Your task to perform on an android device: move a message to another label in the gmail app Image 0: 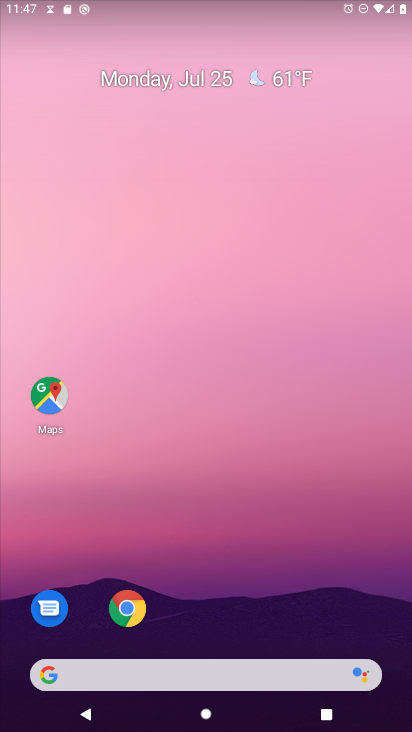
Step 0: drag from (194, 674) to (199, 47)
Your task to perform on an android device: move a message to another label in the gmail app Image 1: 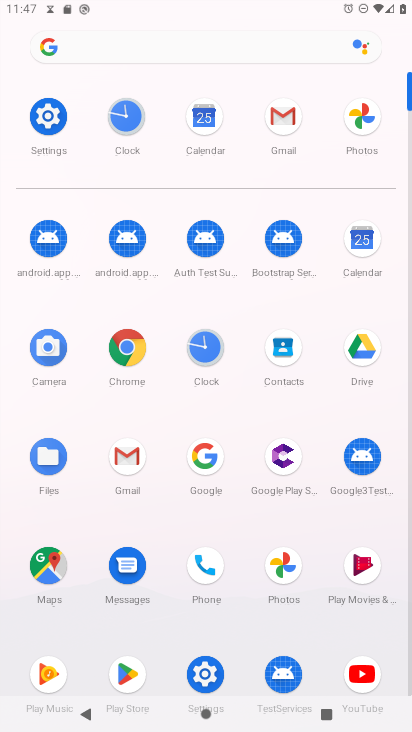
Step 1: click (126, 454)
Your task to perform on an android device: move a message to another label in the gmail app Image 2: 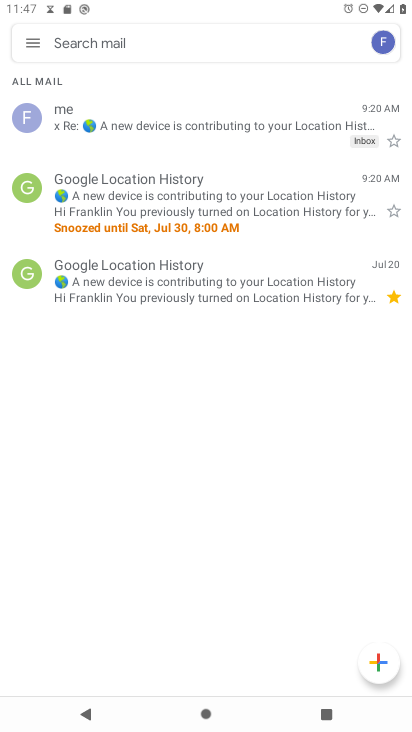
Step 2: click (222, 121)
Your task to perform on an android device: move a message to another label in the gmail app Image 3: 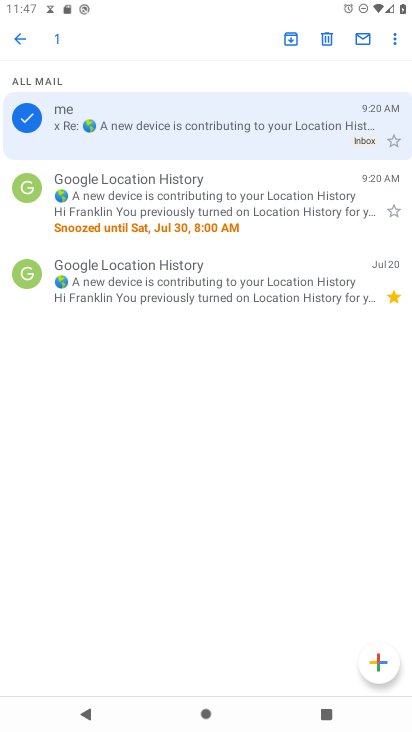
Step 3: click (393, 42)
Your task to perform on an android device: move a message to another label in the gmail app Image 4: 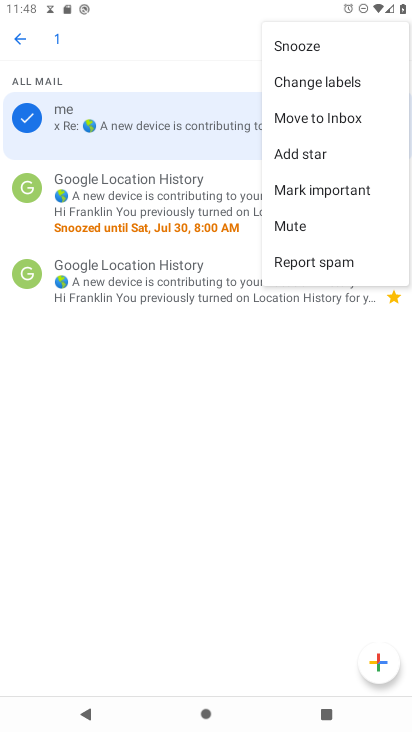
Step 4: click (344, 113)
Your task to perform on an android device: move a message to another label in the gmail app Image 5: 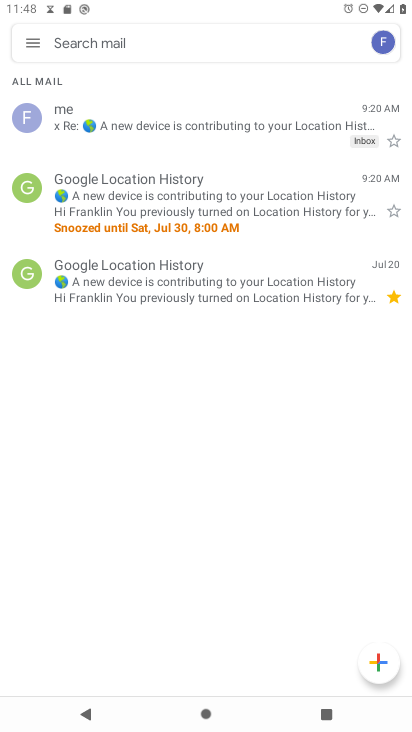
Step 5: task complete